Your task to perform on an android device: install app "Adobe Acrobat Reader" Image 0: 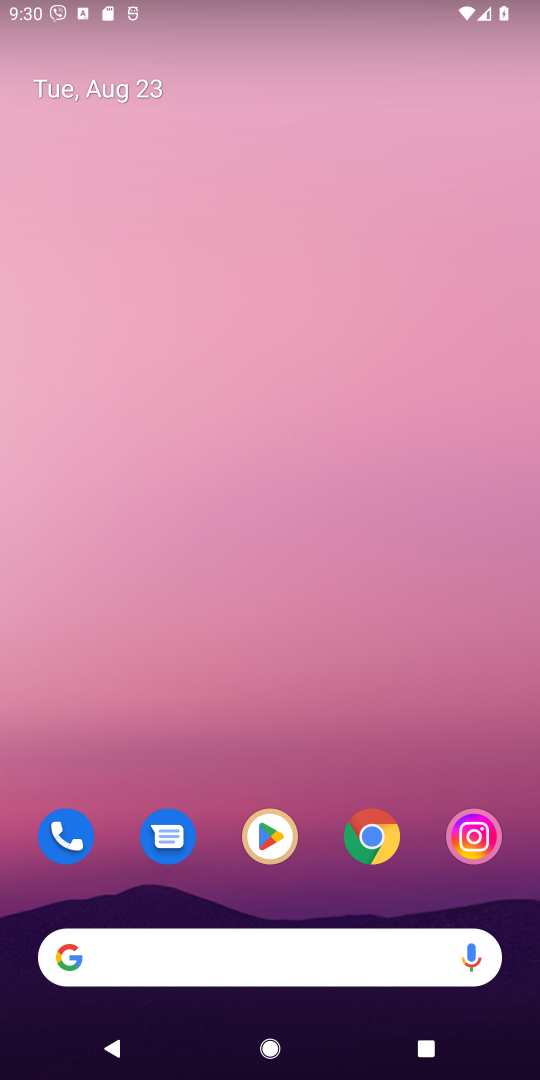
Step 0: click (266, 835)
Your task to perform on an android device: install app "Adobe Acrobat Reader" Image 1: 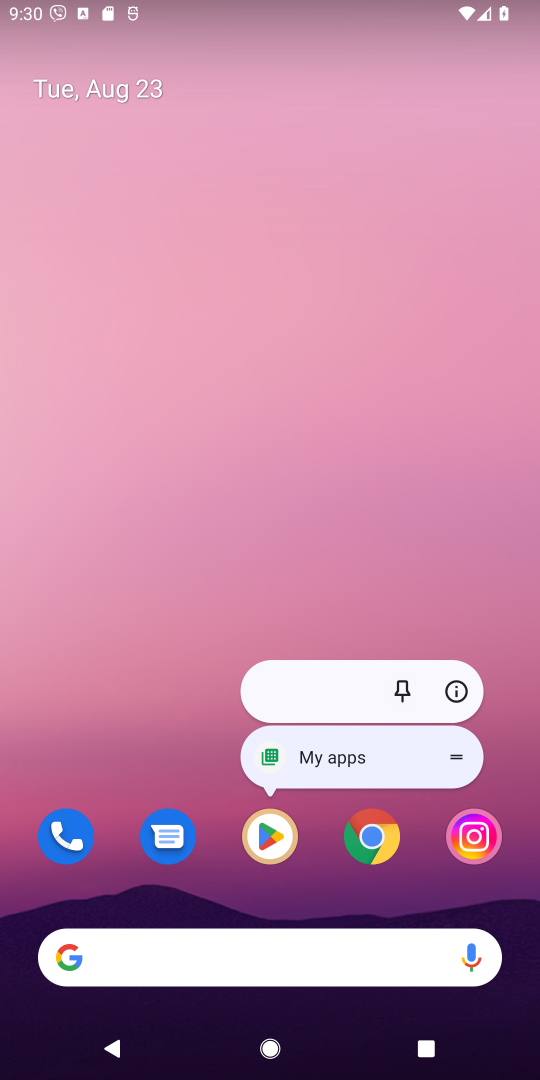
Step 1: click (266, 835)
Your task to perform on an android device: install app "Adobe Acrobat Reader" Image 2: 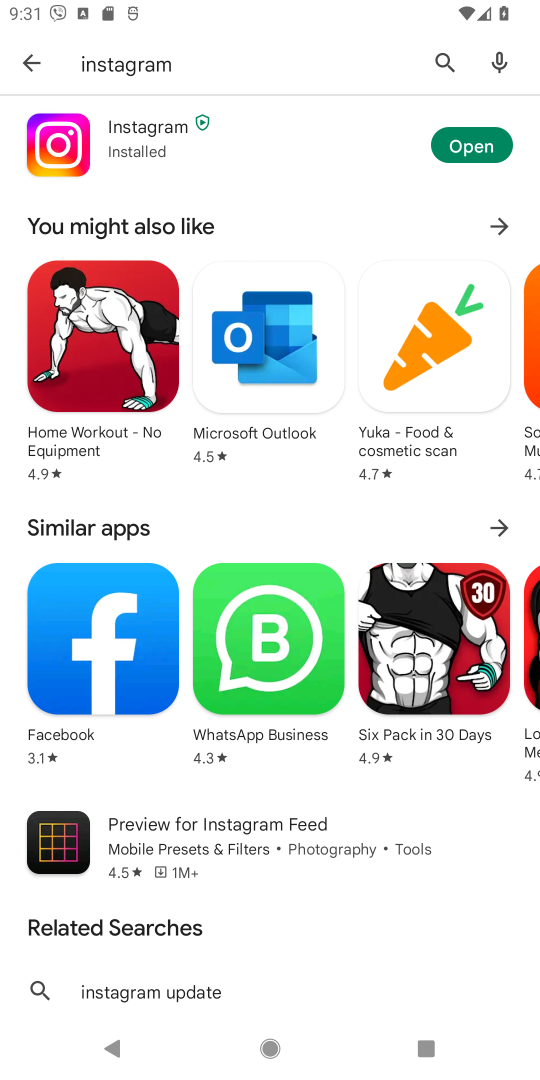
Step 2: click (447, 59)
Your task to perform on an android device: install app "Adobe Acrobat Reader" Image 3: 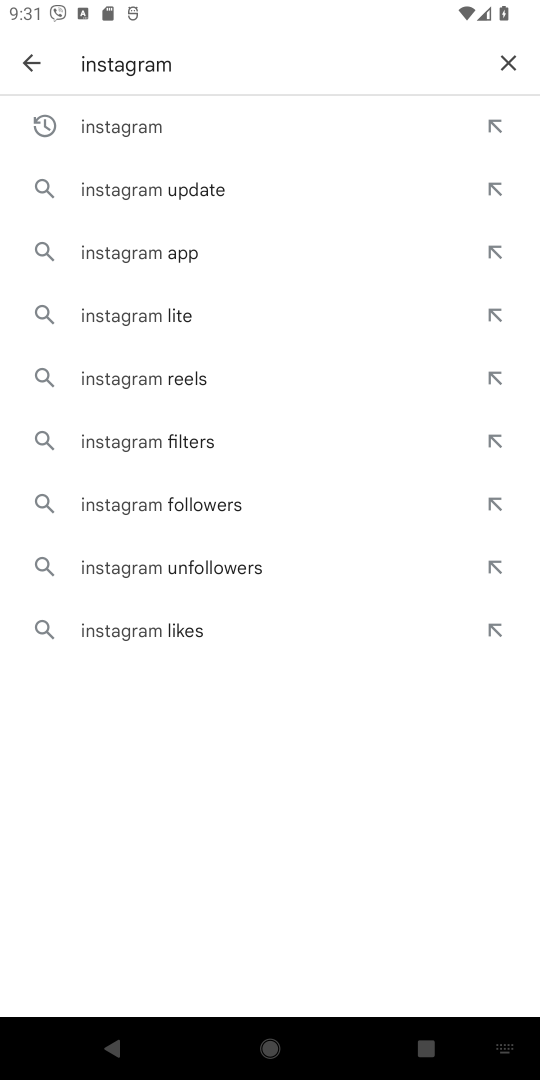
Step 3: click (506, 55)
Your task to perform on an android device: install app "Adobe Acrobat Reader" Image 4: 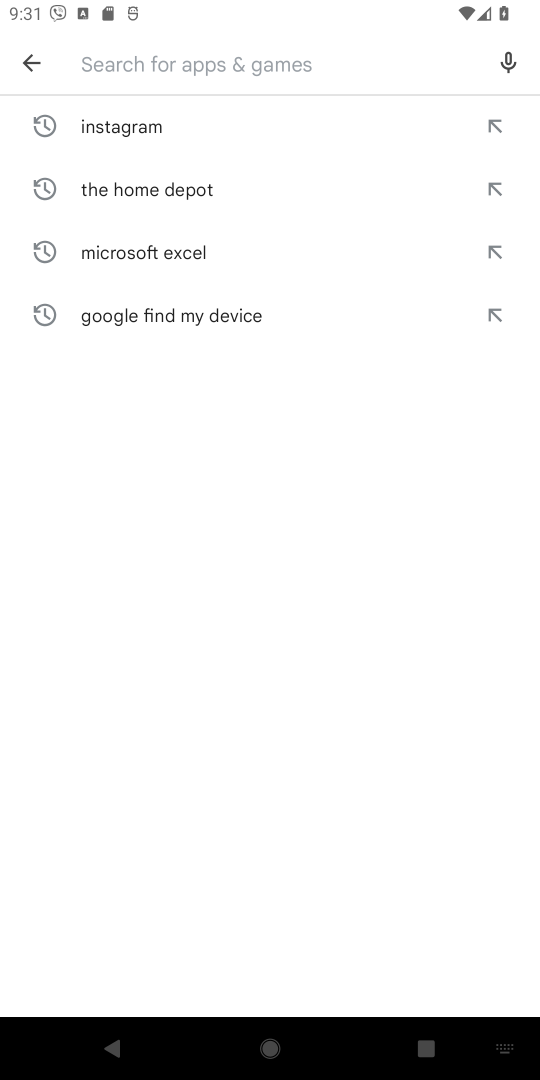
Step 4: type "Adobe Acrobat Reader"
Your task to perform on an android device: install app "Adobe Acrobat Reader" Image 5: 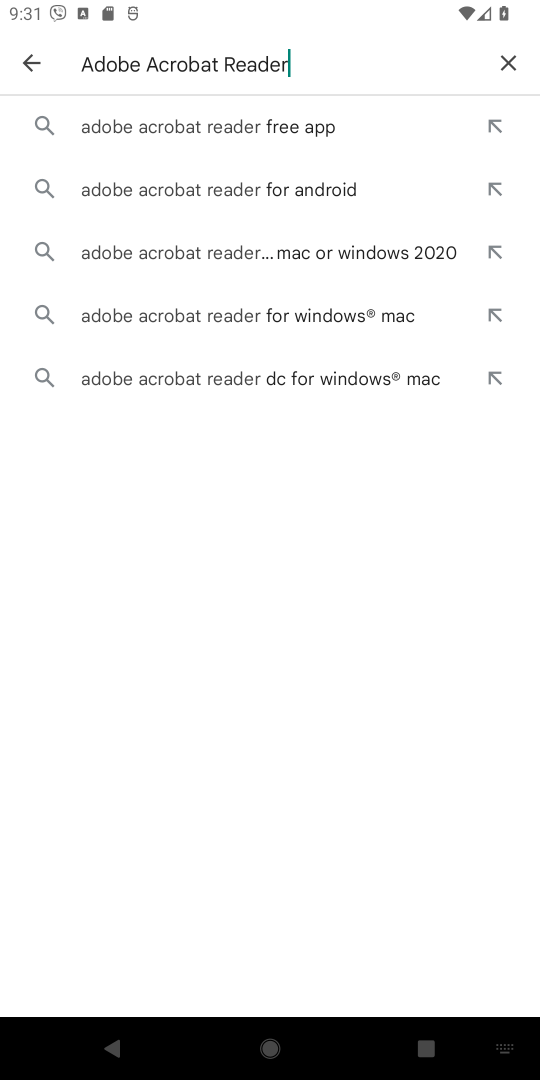
Step 5: click (217, 129)
Your task to perform on an android device: install app "Adobe Acrobat Reader" Image 6: 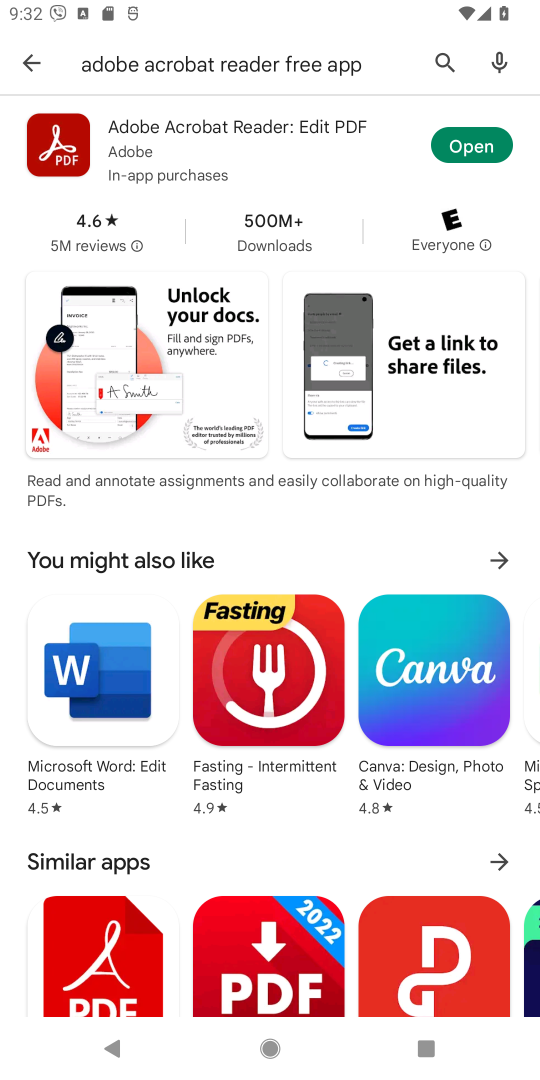
Step 6: task complete